Your task to perform on an android device: delete location history Image 0: 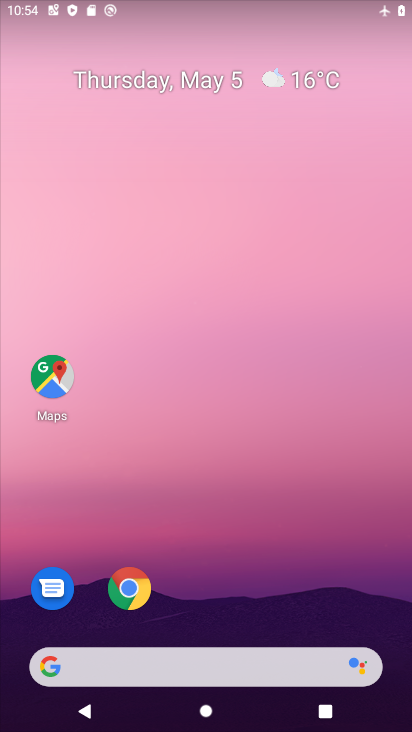
Step 0: drag from (228, 607) to (223, 245)
Your task to perform on an android device: delete location history Image 1: 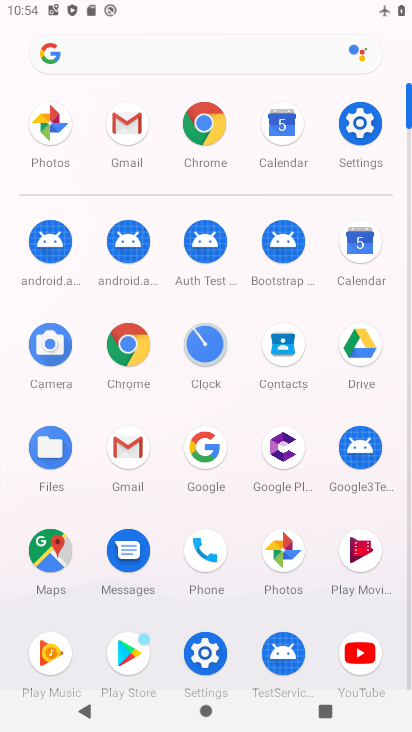
Step 1: click (56, 546)
Your task to perform on an android device: delete location history Image 2: 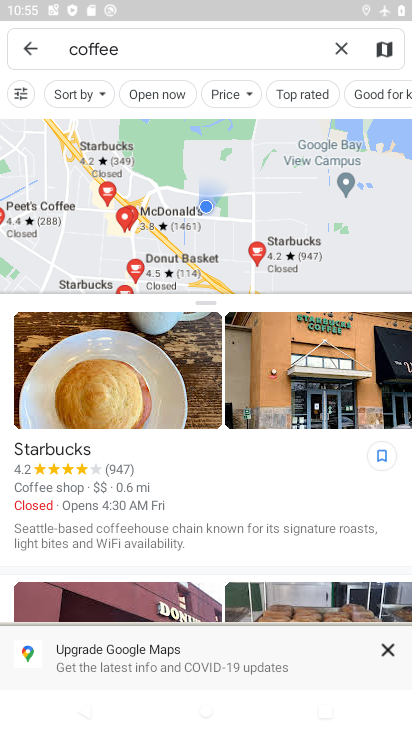
Step 2: click (37, 59)
Your task to perform on an android device: delete location history Image 3: 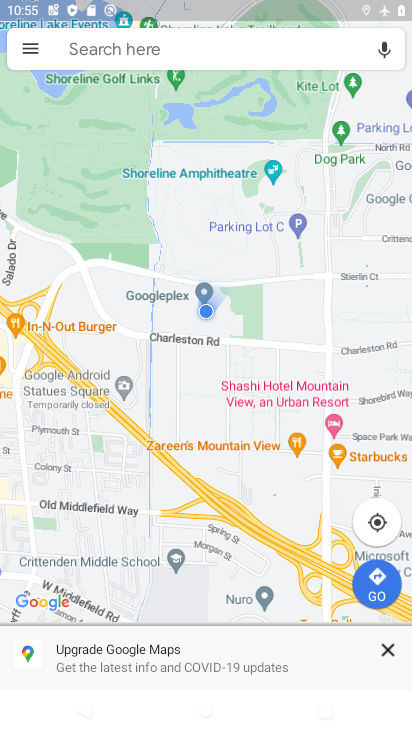
Step 3: click (30, 55)
Your task to perform on an android device: delete location history Image 4: 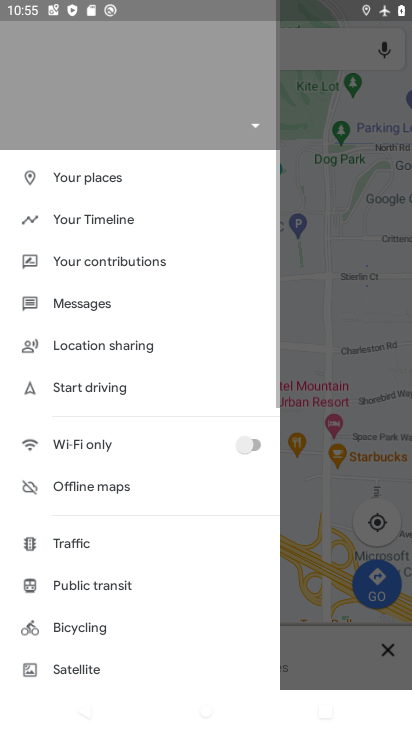
Step 4: click (27, 50)
Your task to perform on an android device: delete location history Image 5: 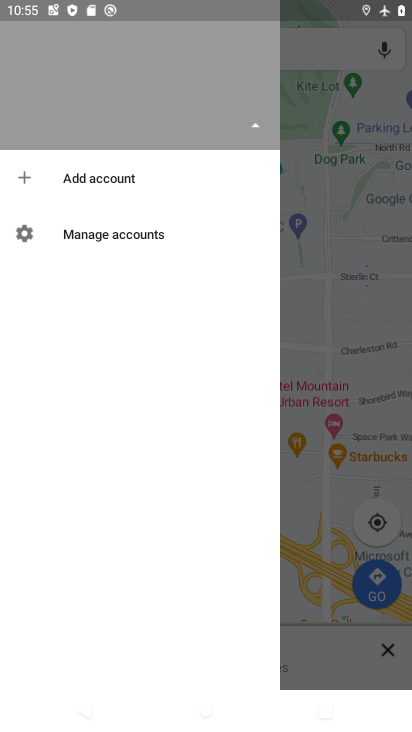
Step 5: click (26, 51)
Your task to perform on an android device: delete location history Image 6: 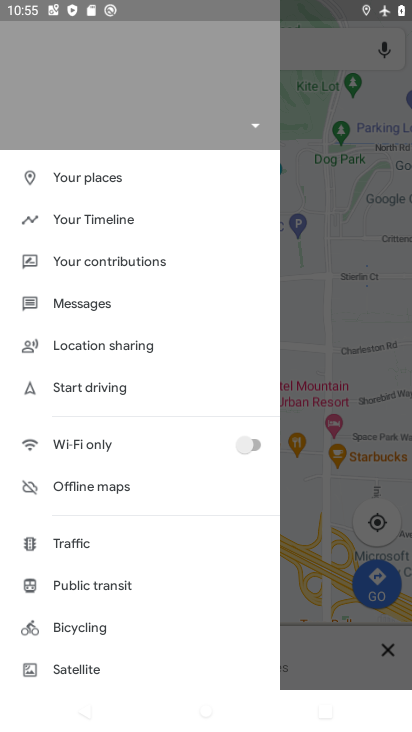
Step 6: click (109, 220)
Your task to perform on an android device: delete location history Image 7: 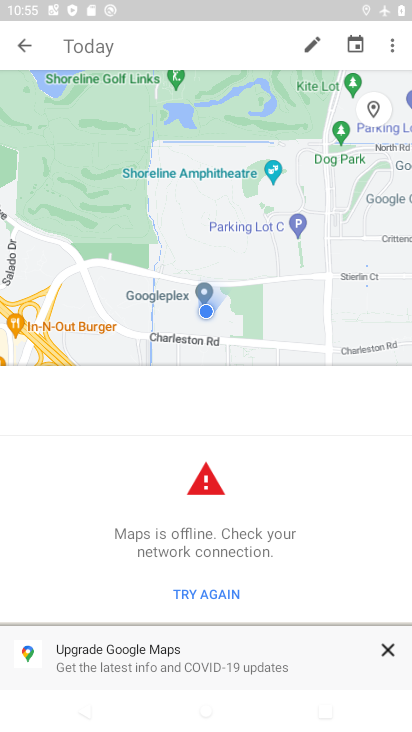
Step 7: click (391, 38)
Your task to perform on an android device: delete location history Image 8: 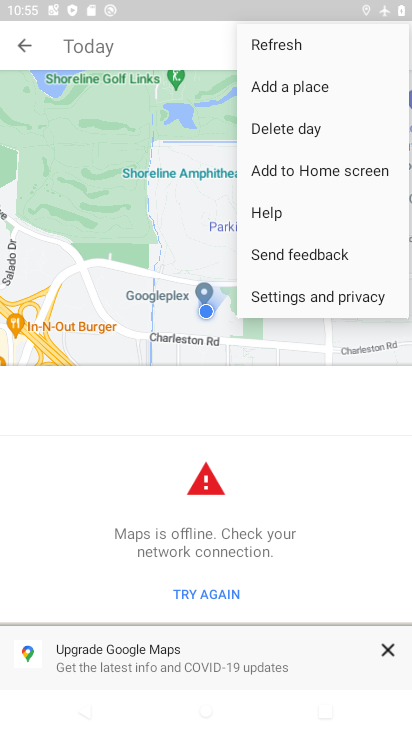
Step 8: click (321, 304)
Your task to perform on an android device: delete location history Image 9: 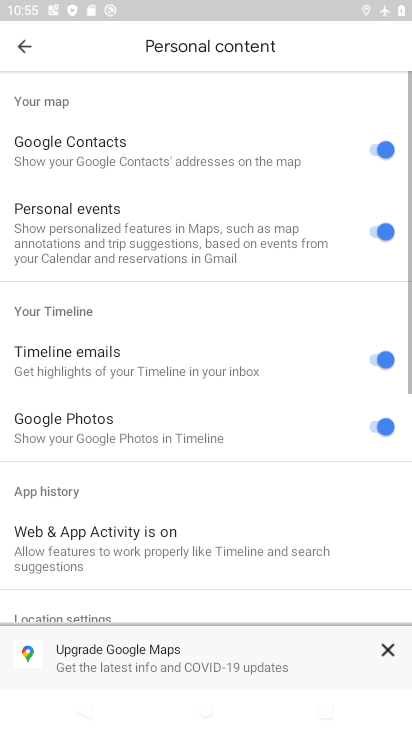
Step 9: drag from (278, 584) to (259, 158)
Your task to perform on an android device: delete location history Image 10: 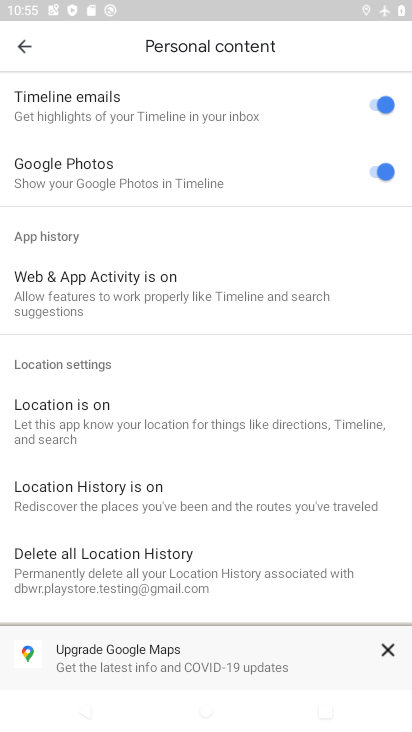
Step 10: click (267, 567)
Your task to perform on an android device: delete location history Image 11: 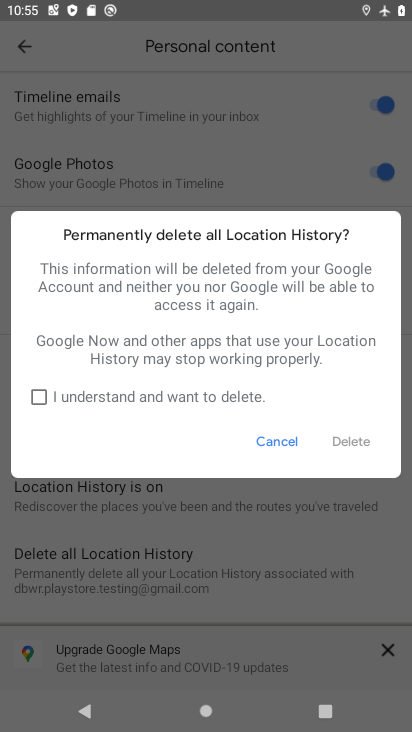
Step 11: click (201, 402)
Your task to perform on an android device: delete location history Image 12: 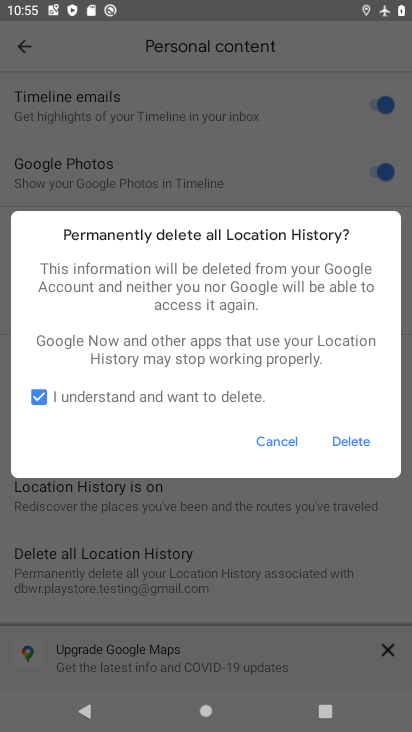
Step 12: click (347, 445)
Your task to perform on an android device: delete location history Image 13: 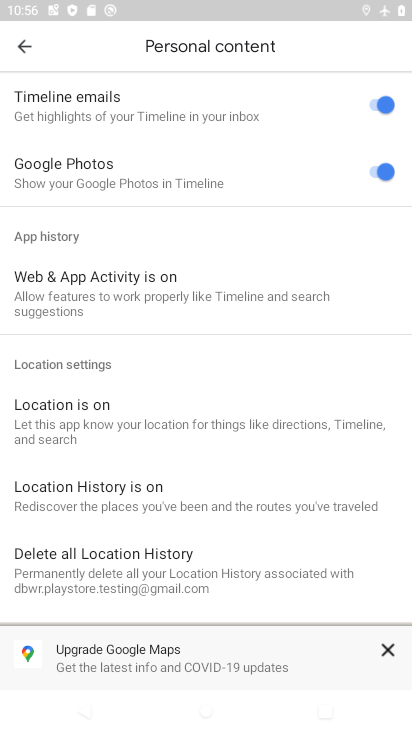
Step 13: task complete